Your task to perform on an android device: see creations saved in the google photos Image 0: 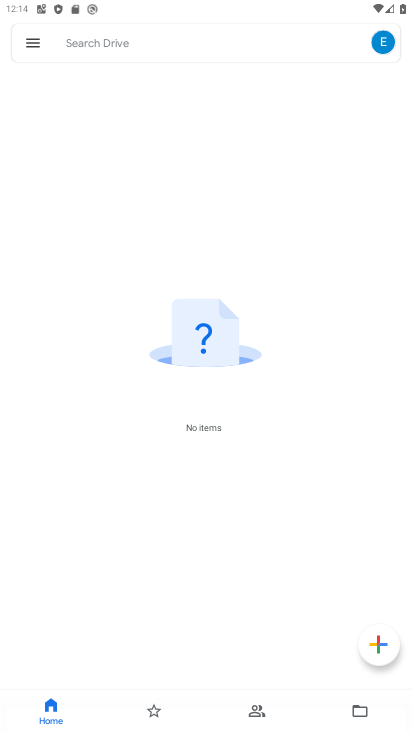
Step 0: press home button
Your task to perform on an android device: see creations saved in the google photos Image 1: 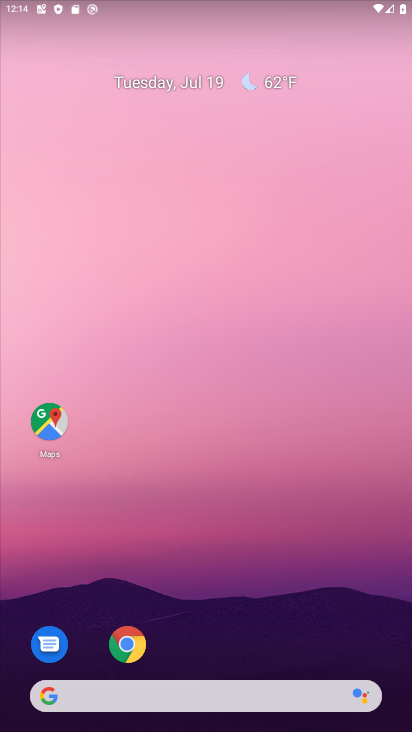
Step 1: drag from (190, 596) to (175, 122)
Your task to perform on an android device: see creations saved in the google photos Image 2: 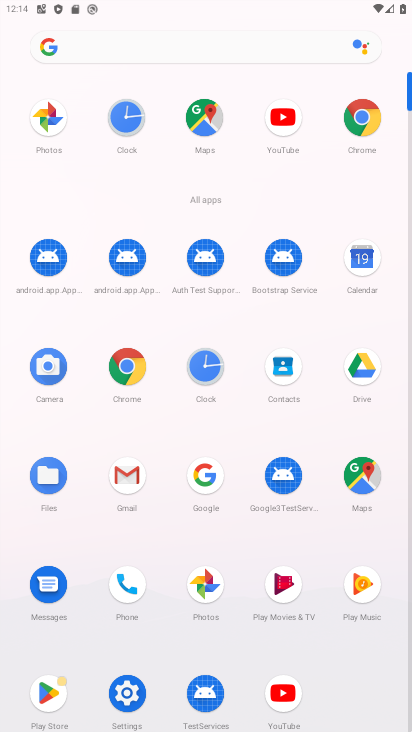
Step 2: click (52, 113)
Your task to perform on an android device: see creations saved in the google photos Image 3: 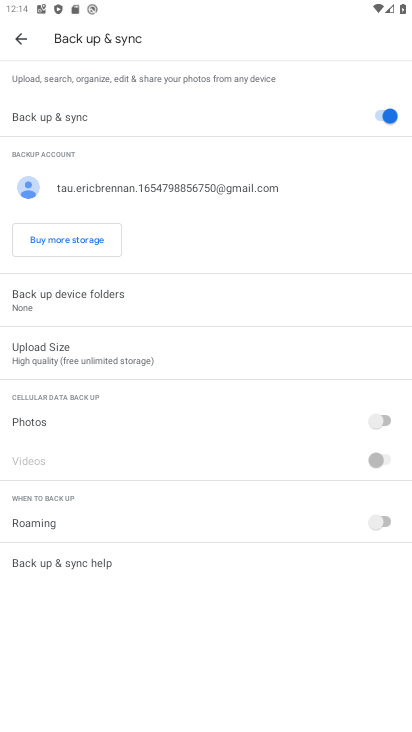
Step 3: click (20, 35)
Your task to perform on an android device: see creations saved in the google photos Image 4: 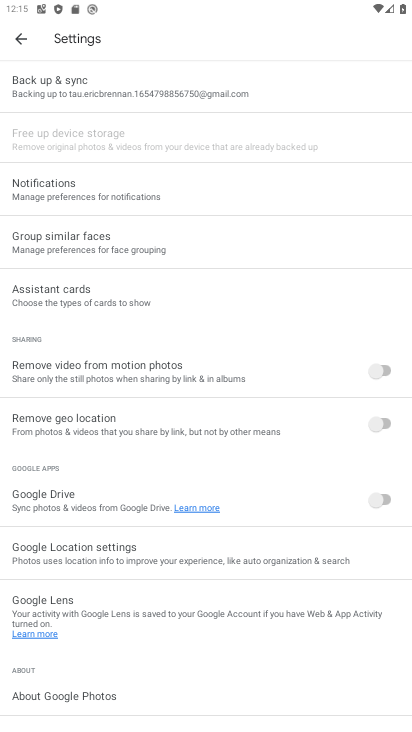
Step 4: click (11, 28)
Your task to perform on an android device: see creations saved in the google photos Image 5: 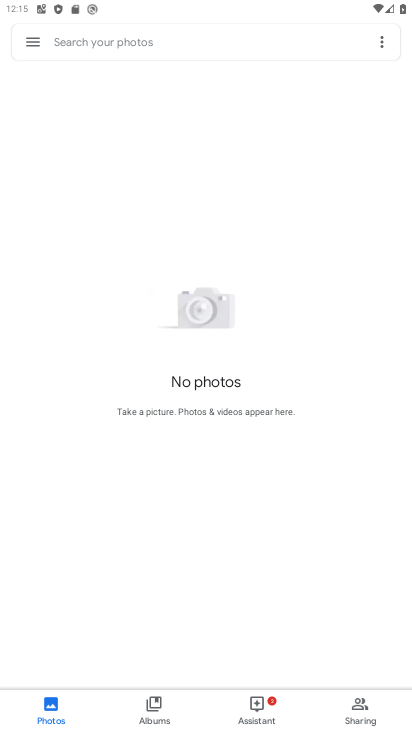
Step 5: click (91, 39)
Your task to perform on an android device: see creations saved in the google photos Image 6: 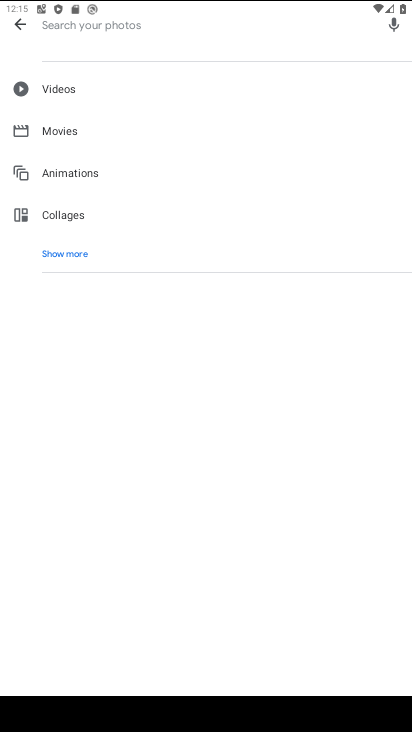
Step 6: click (61, 251)
Your task to perform on an android device: see creations saved in the google photos Image 7: 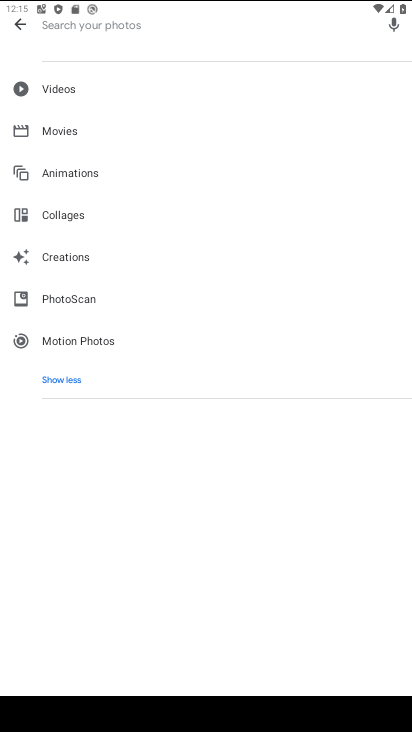
Step 7: click (62, 254)
Your task to perform on an android device: see creations saved in the google photos Image 8: 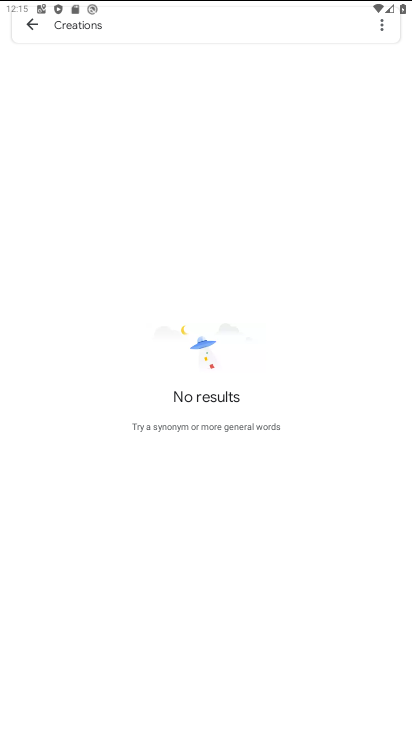
Step 8: task complete